Your task to perform on an android device: Clear the cart on newegg. Image 0: 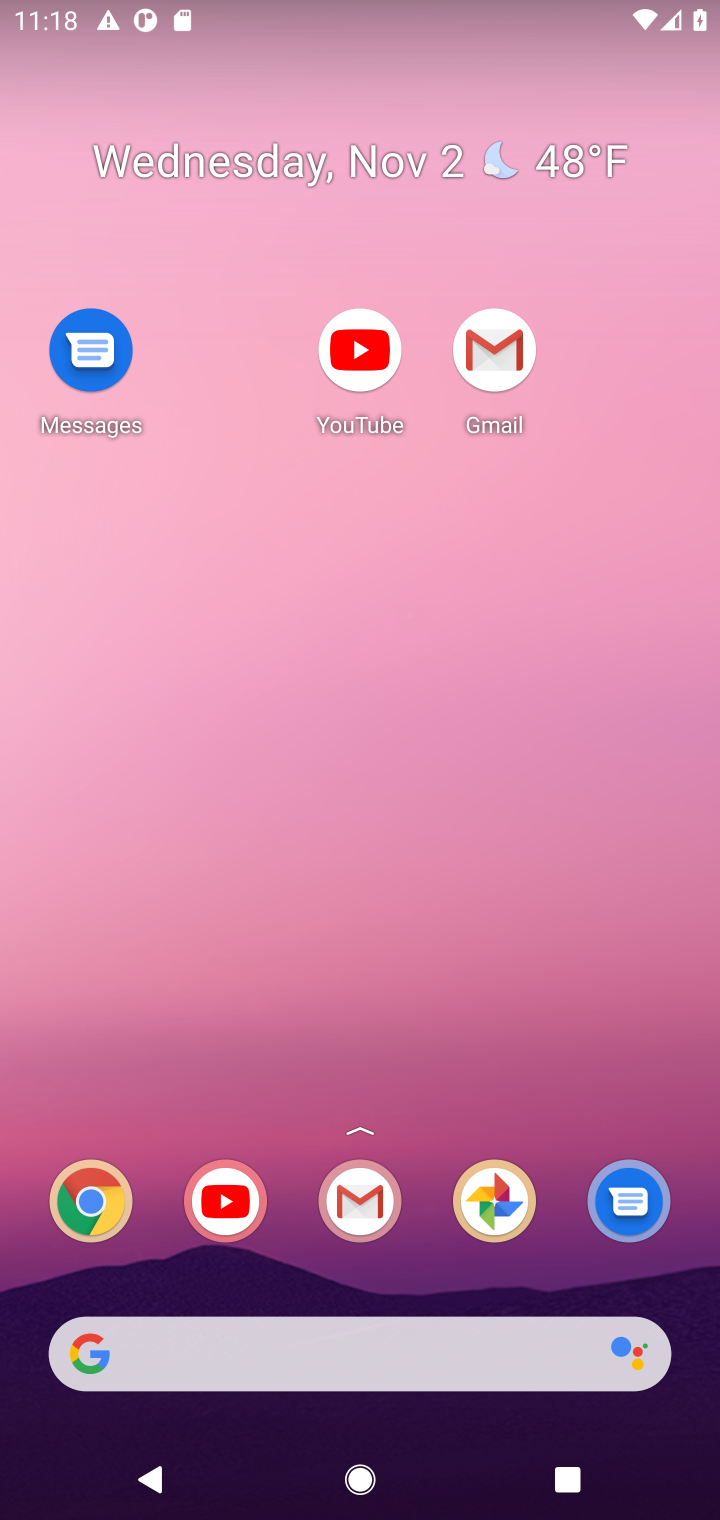
Step 0: drag from (430, 1281) to (438, 379)
Your task to perform on an android device: Clear the cart on newegg. Image 1: 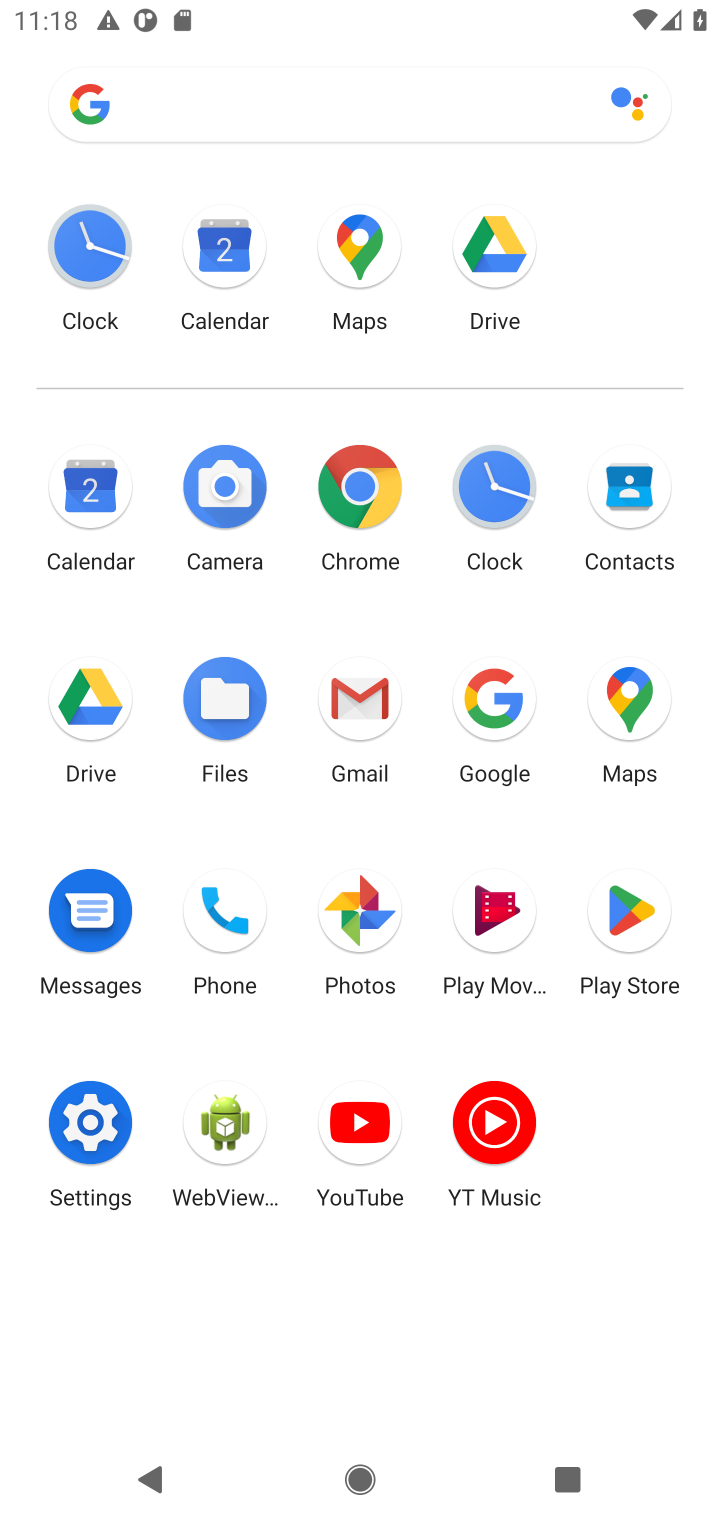
Step 1: click (365, 464)
Your task to perform on an android device: Clear the cart on newegg. Image 2: 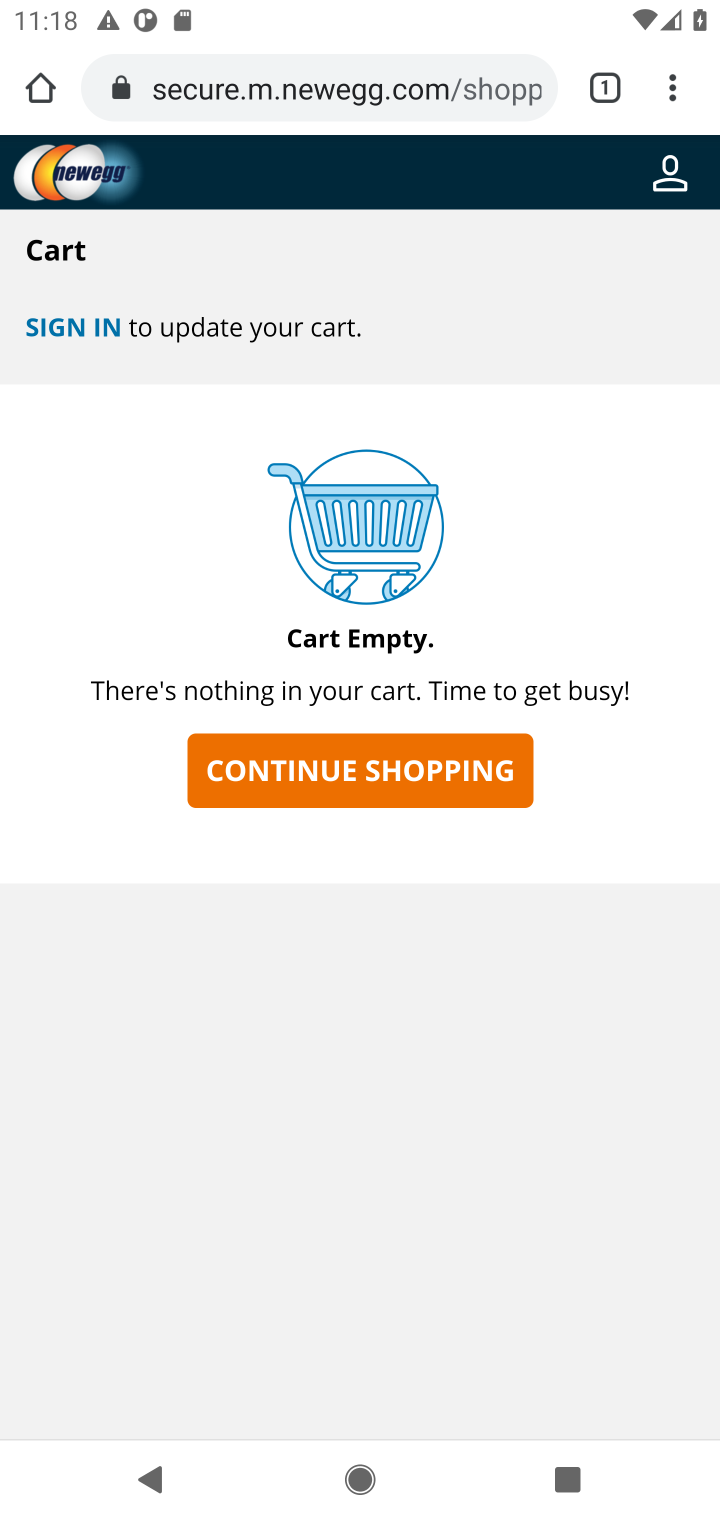
Step 2: click (369, 85)
Your task to perform on an android device: Clear the cart on newegg. Image 3: 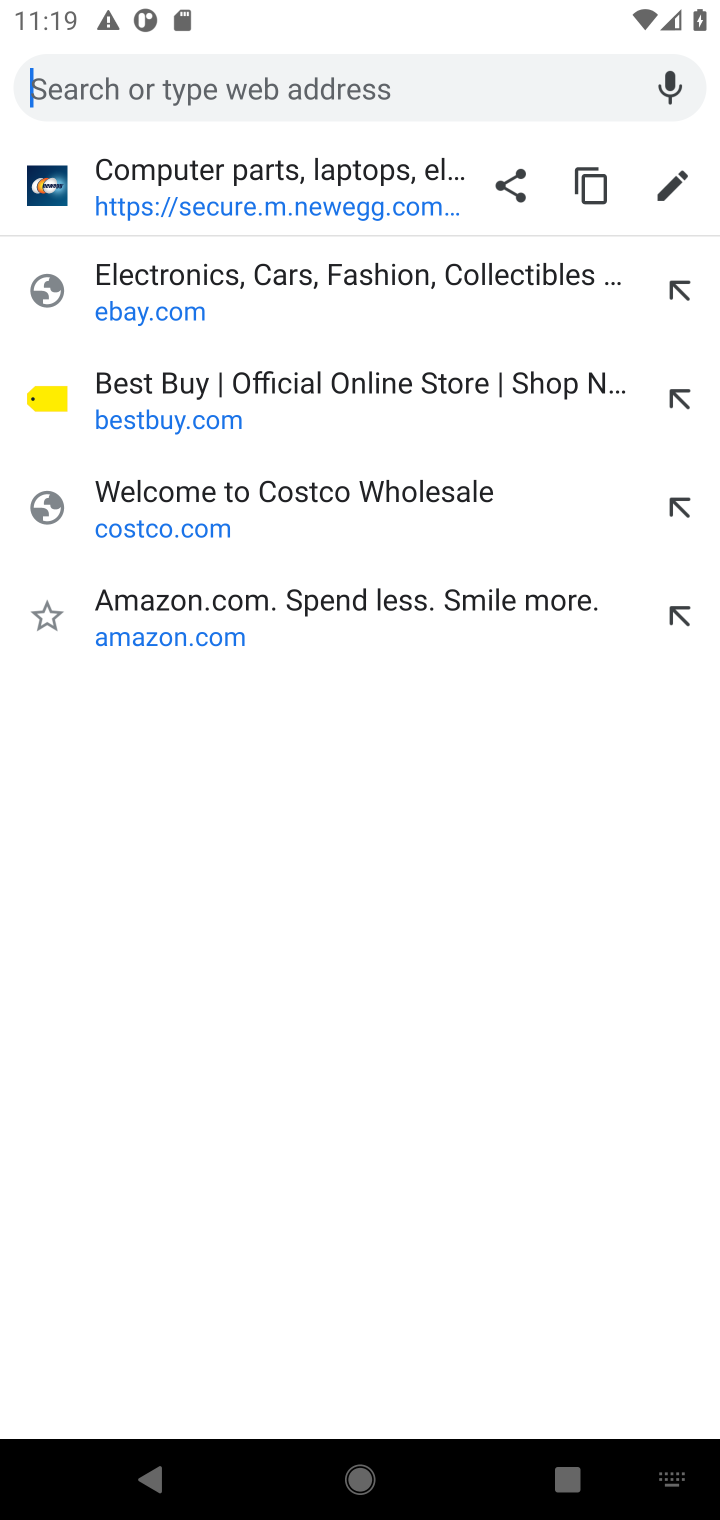
Step 3: type "newegg.com"
Your task to perform on an android device: Clear the cart on newegg. Image 4: 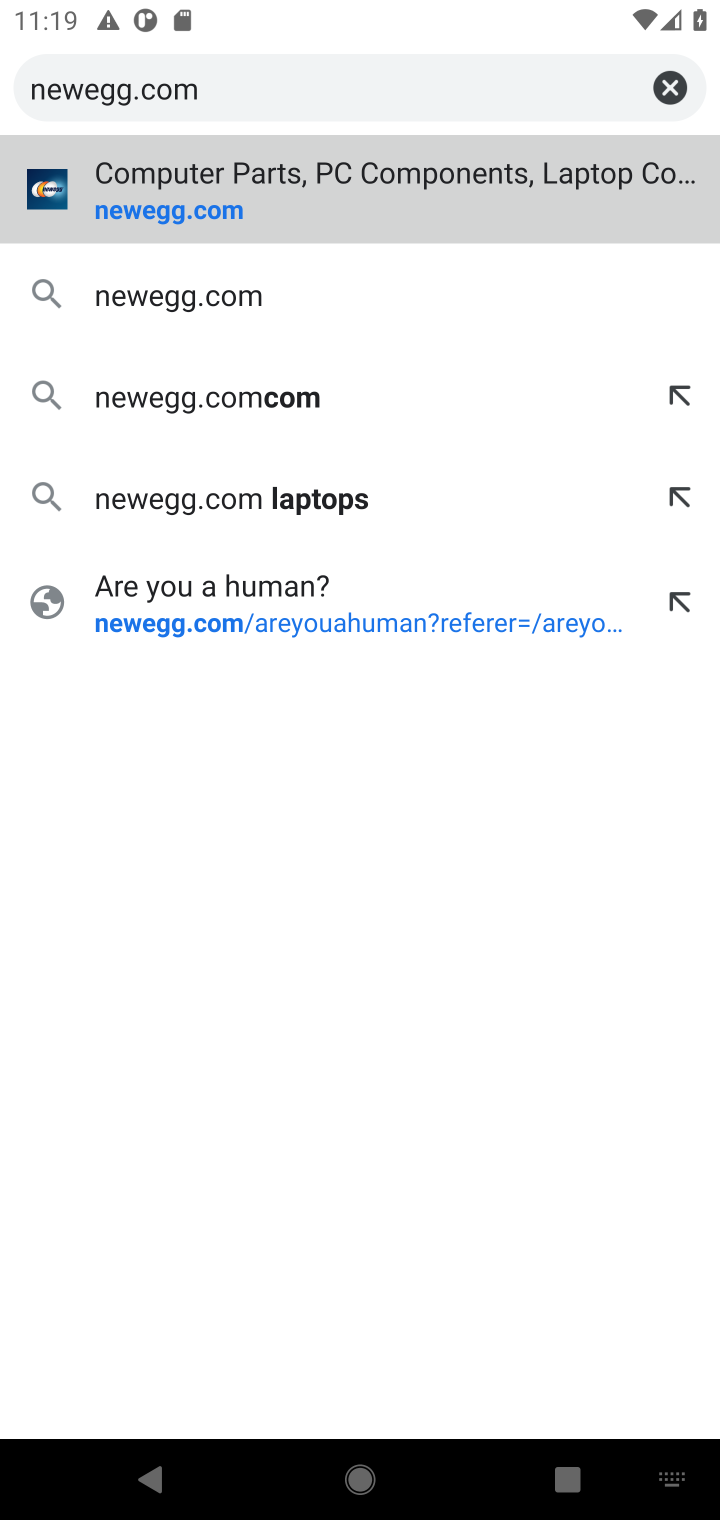
Step 4: press enter
Your task to perform on an android device: Clear the cart on newegg. Image 5: 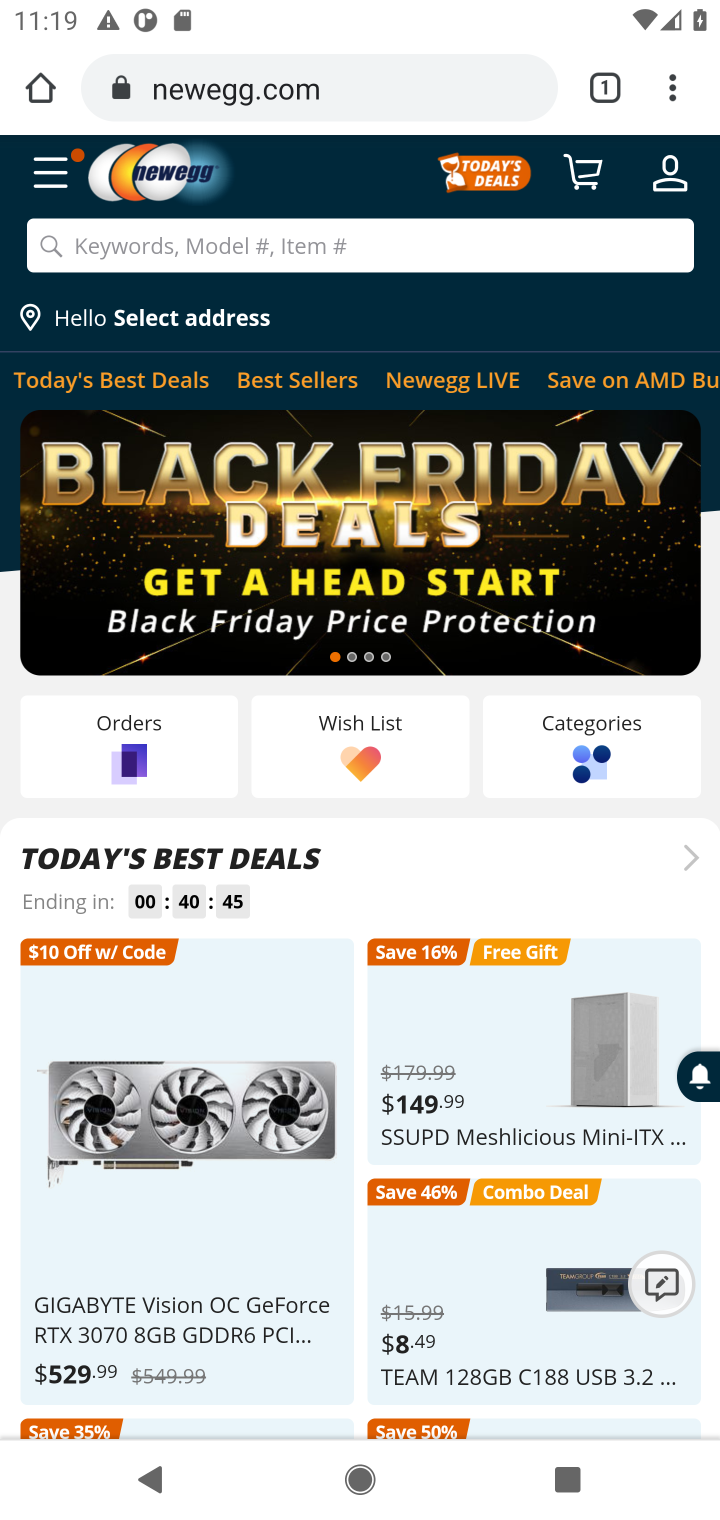
Step 5: click (582, 184)
Your task to perform on an android device: Clear the cart on newegg. Image 6: 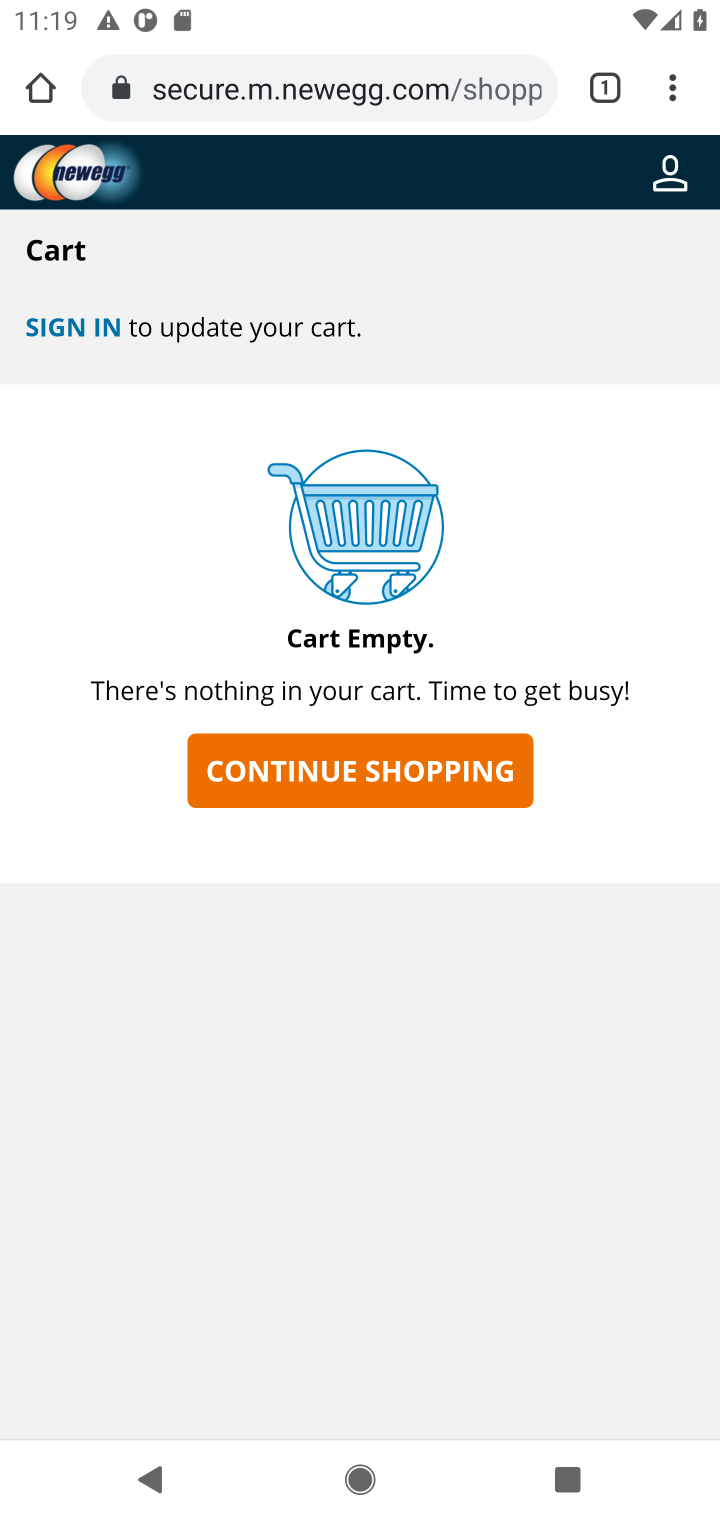
Step 6: task complete